Your task to perform on an android device: Go to network settings Image 0: 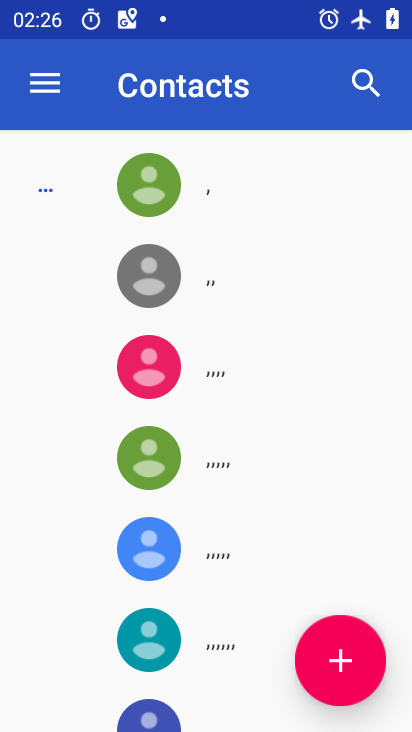
Step 0: press home button
Your task to perform on an android device: Go to network settings Image 1: 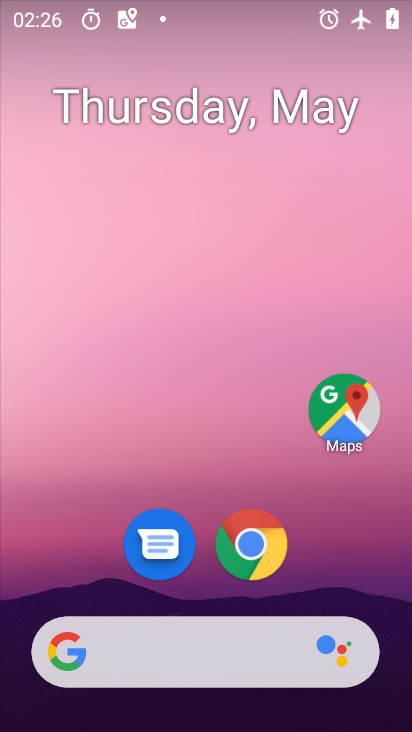
Step 1: drag from (379, 570) to (381, 197)
Your task to perform on an android device: Go to network settings Image 2: 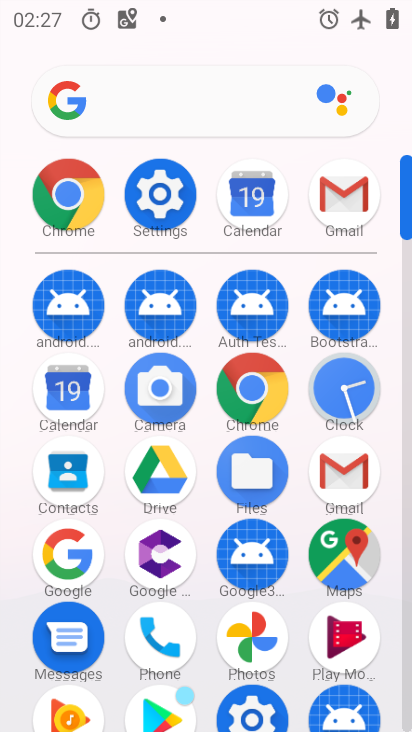
Step 2: click (155, 213)
Your task to perform on an android device: Go to network settings Image 3: 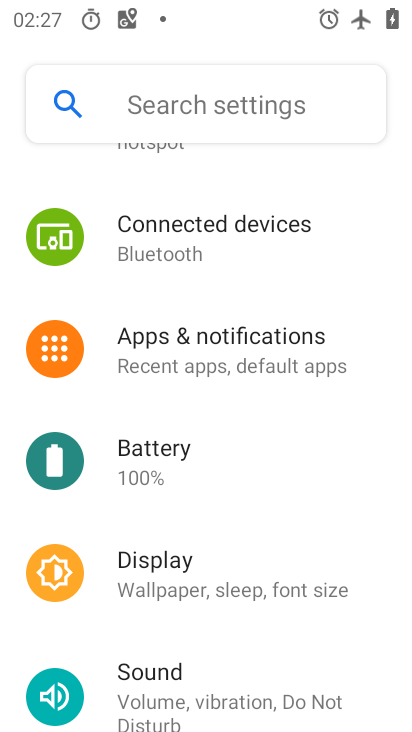
Step 3: drag from (343, 517) to (364, 368)
Your task to perform on an android device: Go to network settings Image 4: 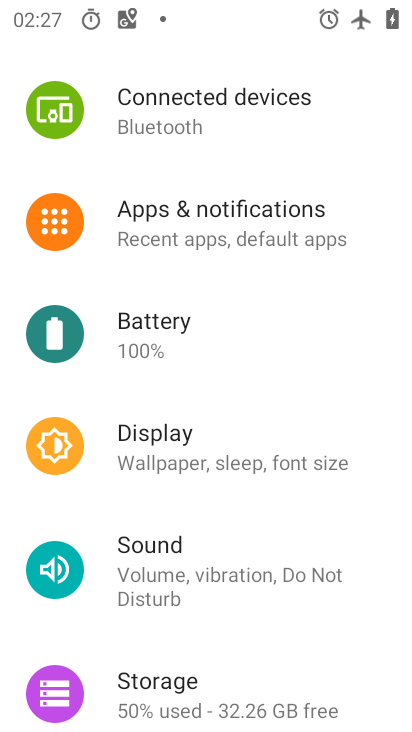
Step 4: drag from (362, 621) to (362, 485)
Your task to perform on an android device: Go to network settings Image 5: 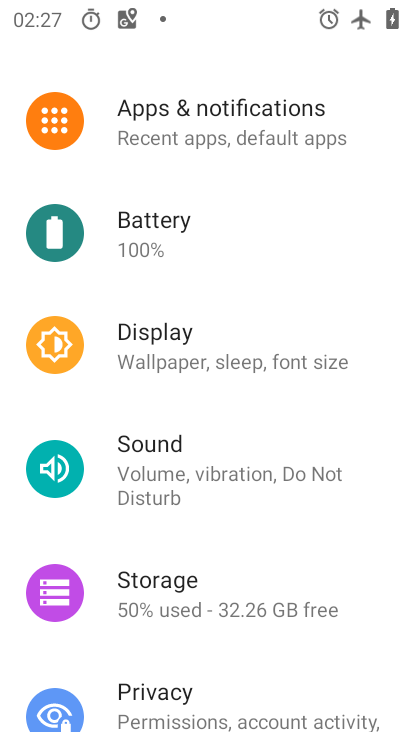
Step 5: drag from (354, 660) to (354, 565)
Your task to perform on an android device: Go to network settings Image 6: 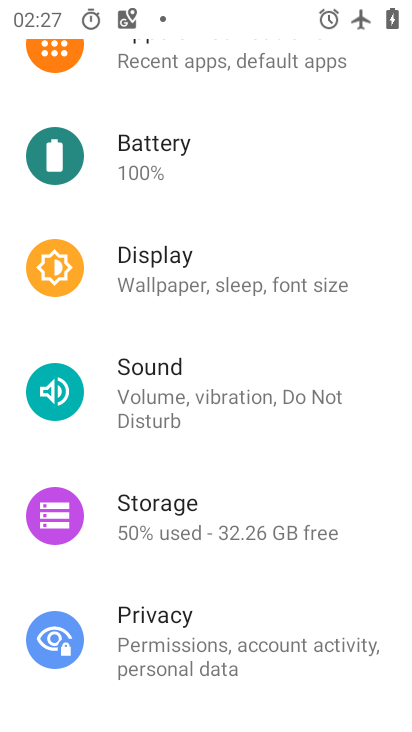
Step 6: drag from (354, 626) to (367, 522)
Your task to perform on an android device: Go to network settings Image 7: 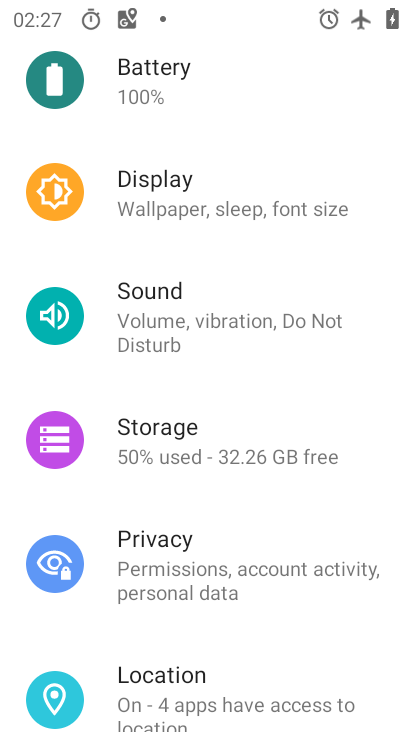
Step 7: drag from (337, 622) to (362, 470)
Your task to perform on an android device: Go to network settings Image 8: 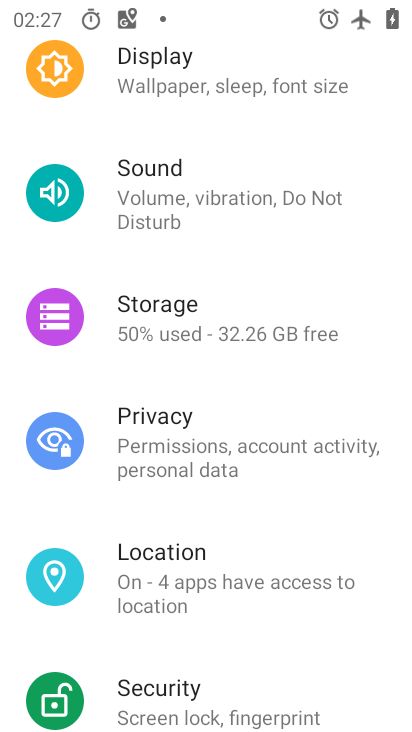
Step 8: drag from (365, 314) to (364, 543)
Your task to perform on an android device: Go to network settings Image 9: 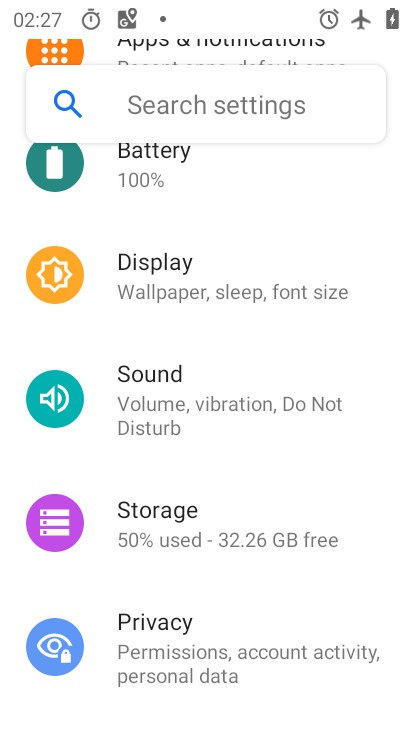
Step 9: drag from (377, 250) to (373, 471)
Your task to perform on an android device: Go to network settings Image 10: 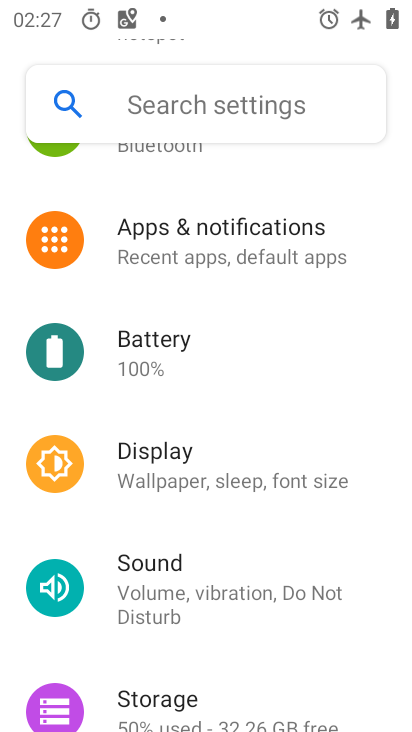
Step 10: drag from (375, 254) to (377, 426)
Your task to perform on an android device: Go to network settings Image 11: 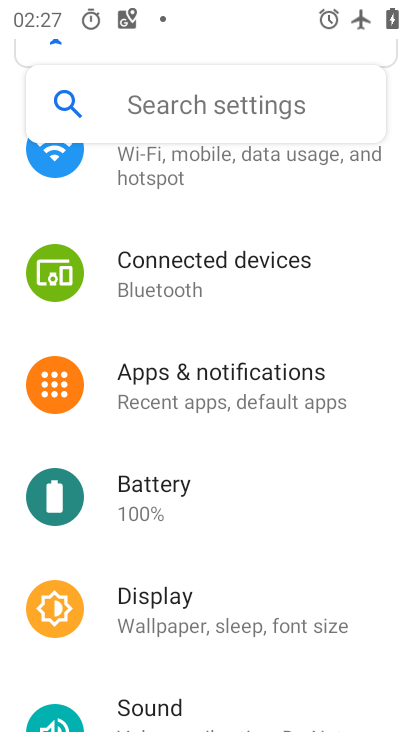
Step 11: drag from (371, 213) to (374, 442)
Your task to perform on an android device: Go to network settings Image 12: 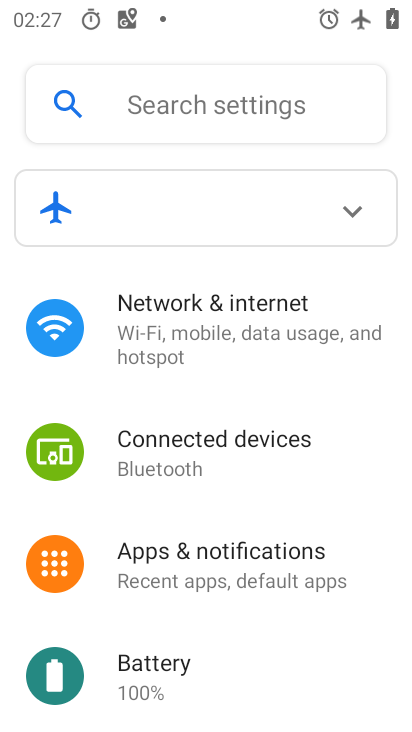
Step 12: click (297, 332)
Your task to perform on an android device: Go to network settings Image 13: 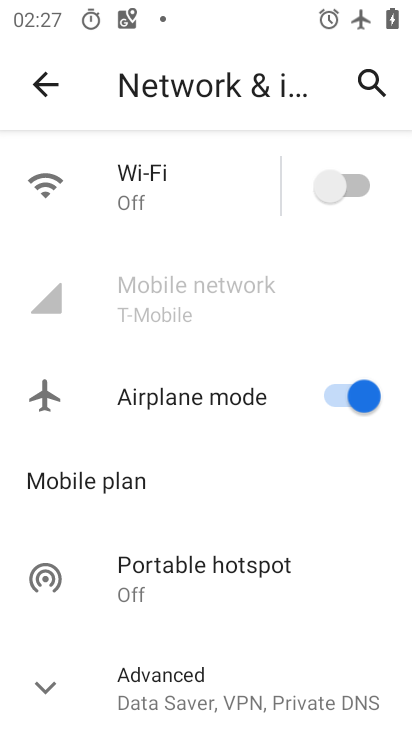
Step 13: task complete